Your task to perform on an android device: Open the calendar and show me this week's events? Image 0: 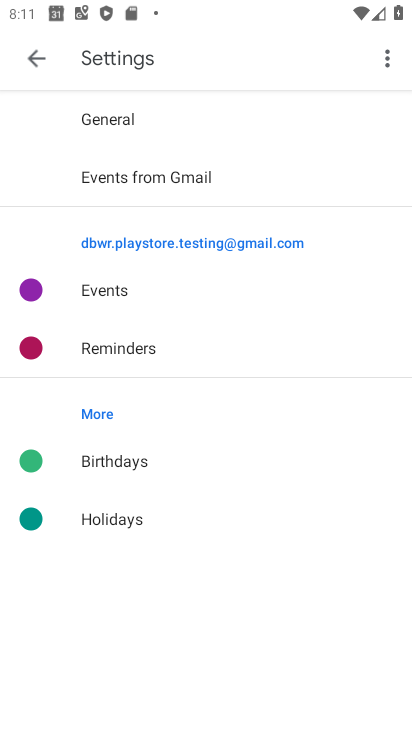
Step 0: press home button
Your task to perform on an android device: Open the calendar and show me this week's events? Image 1: 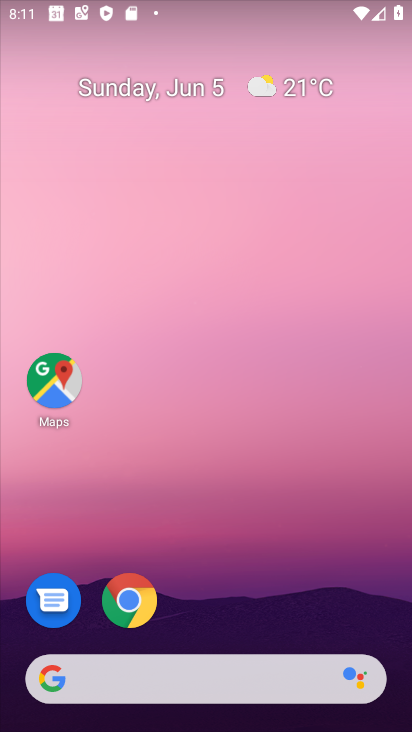
Step 1: drag from (122, 726) to (127, 17)
Your task to perform on an android device: Open the calendar and show me this week's events? Image 2: 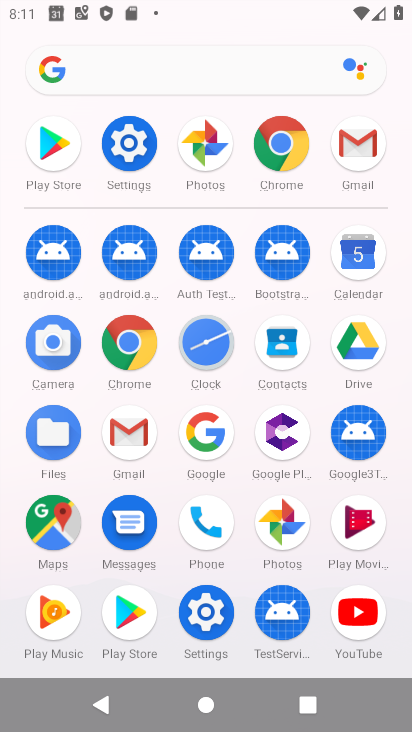
Step 2: click (348, 255)
Your task to perform on an android device: Open the calendar and show me this week's events? Image 3: 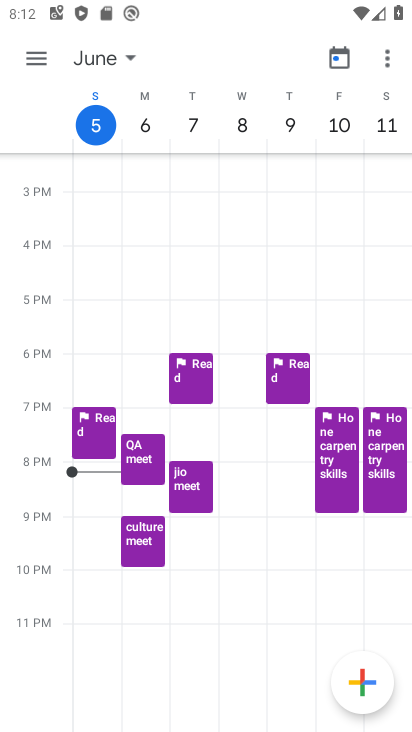
Step 3: task complete